Your task to perform on an android device: Go to settings Image 0: 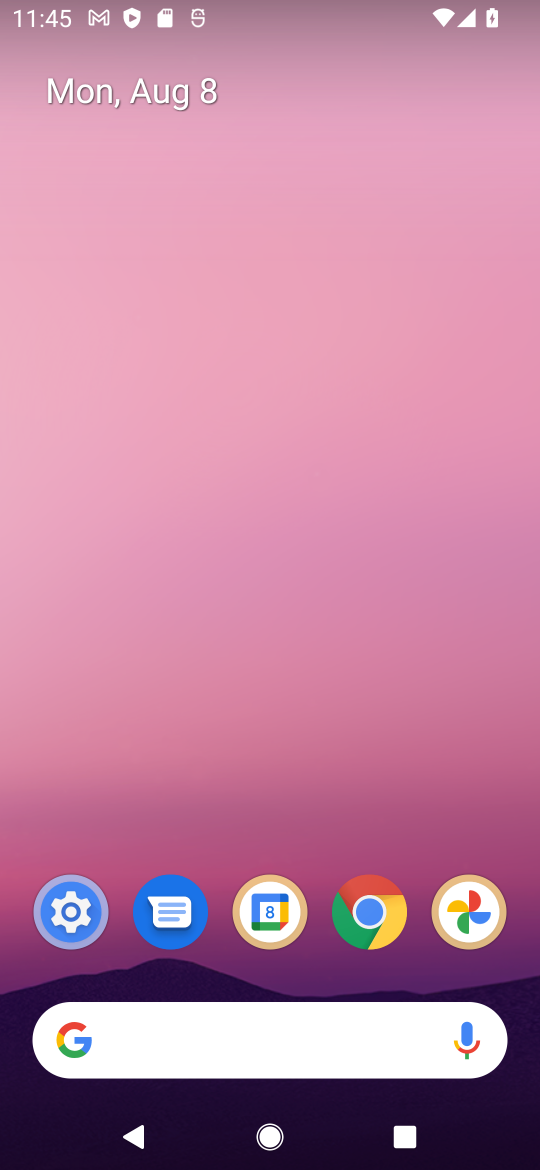
Step 0: click (65, 906)
Your task to perform on an android device: Go to settings Image 1: 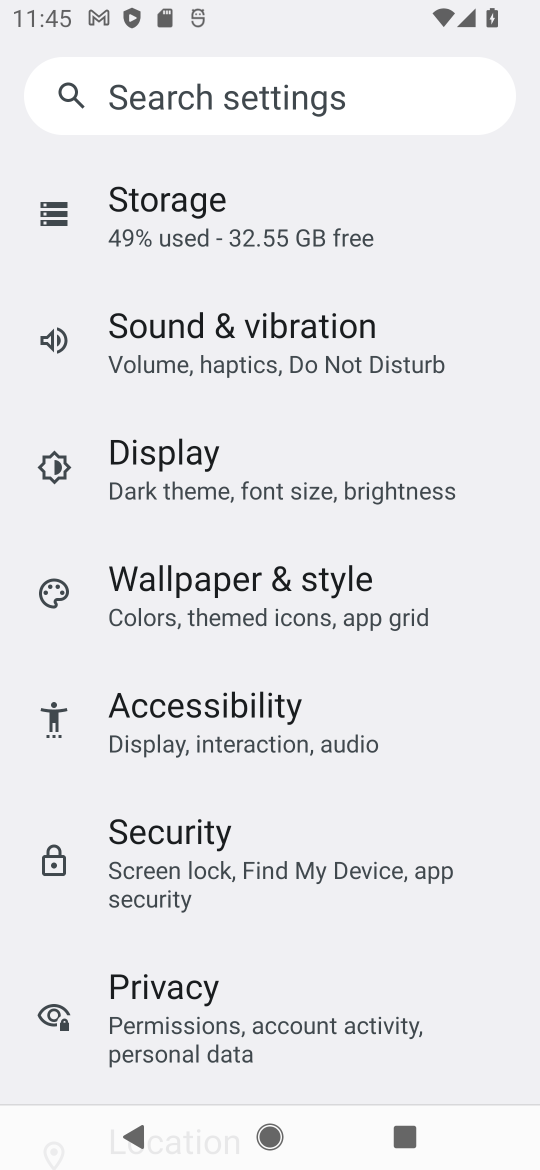
Step 1: task complete